Your task to perform on an android device: Go to battery settings Image 0: 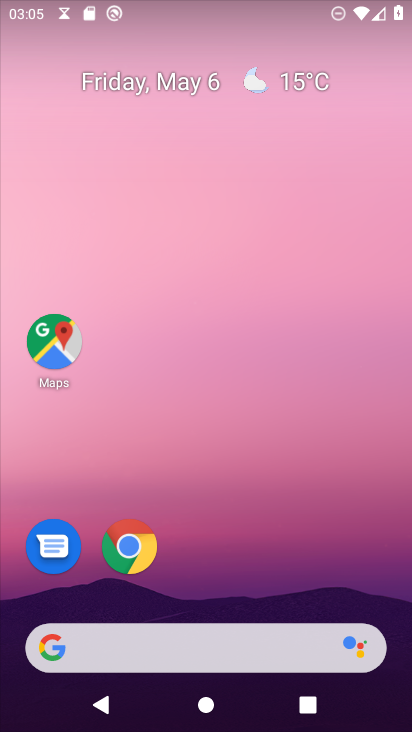
Step 0: drag from (301, 574) to (320, 135)
Your task to perform on an android device: Go to battery settings Image 1: 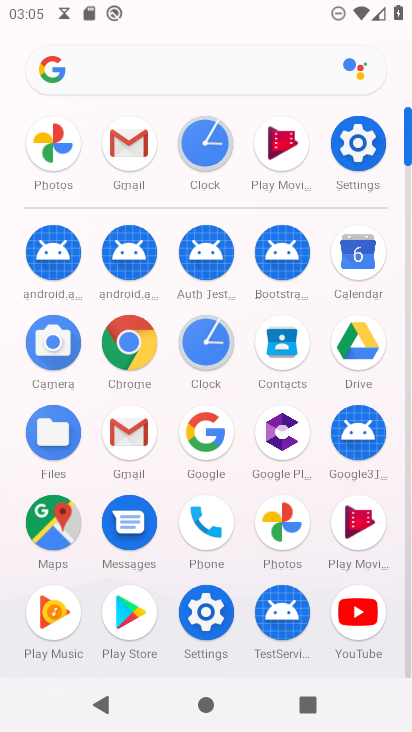
Step 1: click (358, 156)
Your task to perform on an android device: Go to battery settings Image 2: 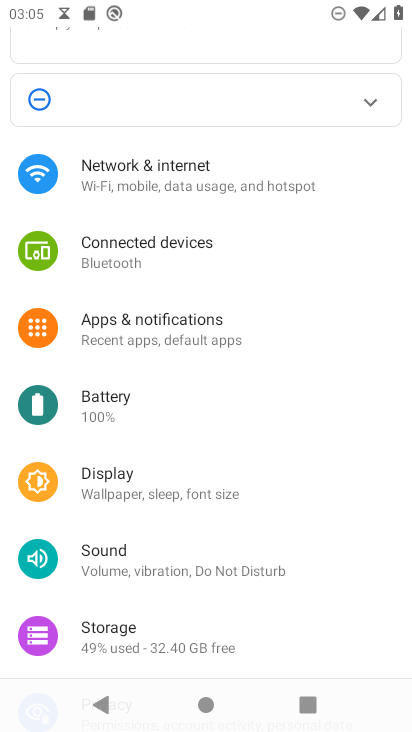
Step 2: click (157, 394)
Your task to perform on an android device: Go to battery settings Image 3: 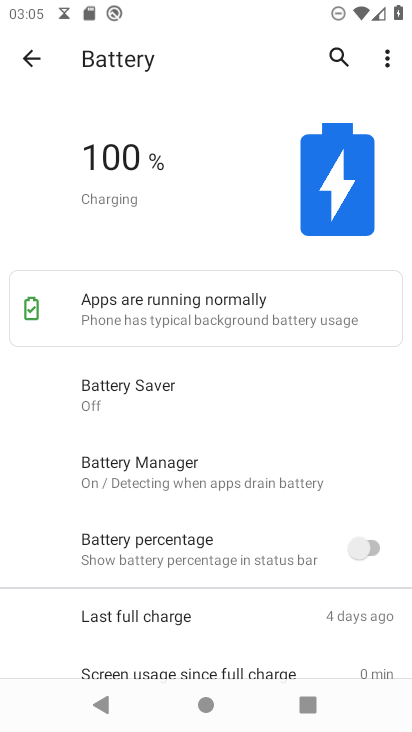
Step 3: task complete